Your task to perform on an android device: Open eBay Image 0: 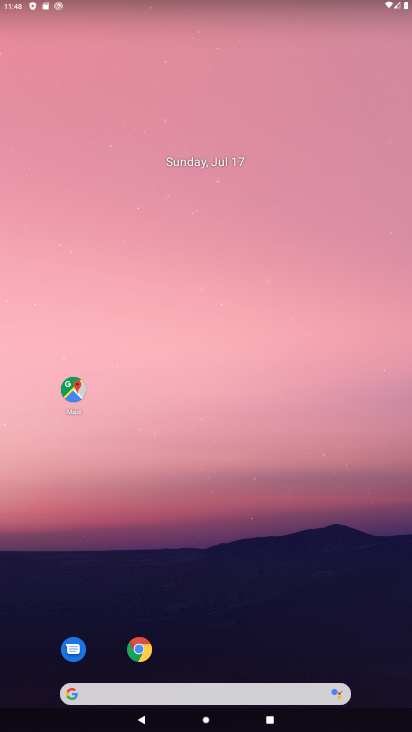
Step 0: click (110, 697)
Your task to perform on an android device: Open eBay Image 1: 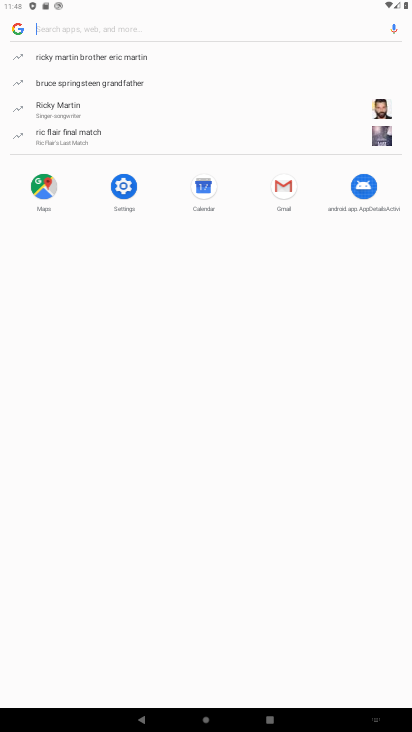
Step 1: type "eBay"
Your task to perform on an android device: Open eBay Image 2: 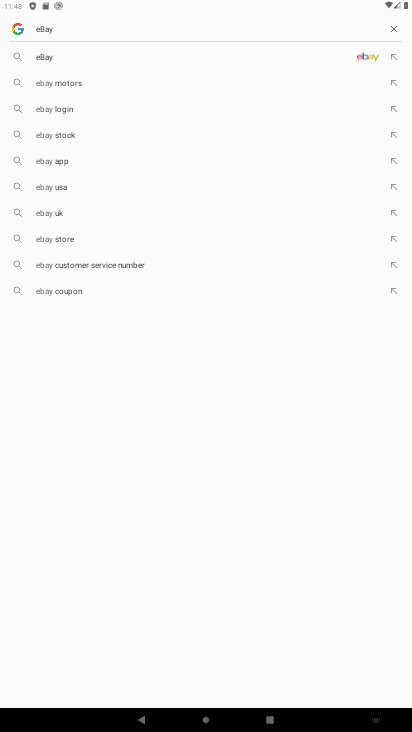
Step 2: click (47, 63)
Your task to perform on an android device: Open eBay Image 3: 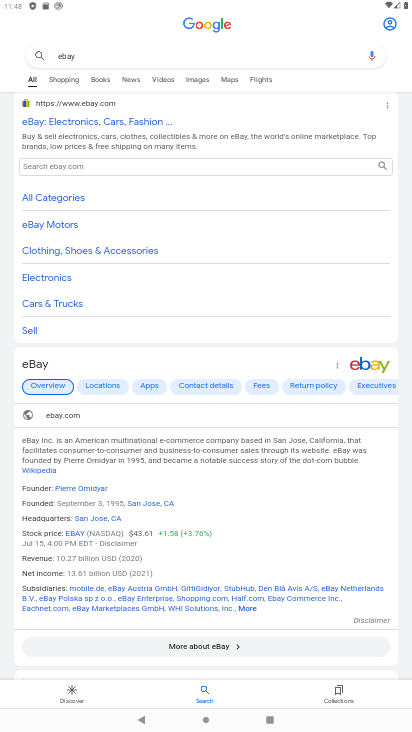
Step 3: task complete